Your task to perform on an android device: Open ESPN.com Image 0: 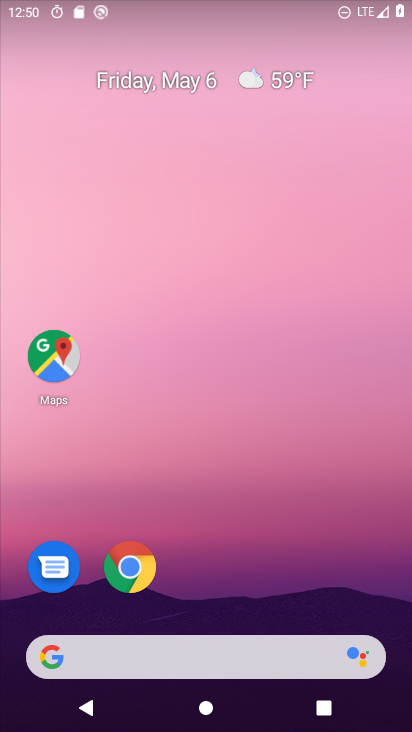
Step 0: click (135, 574)
Your task to perform on an android device: Open ESPN.com Image 1: 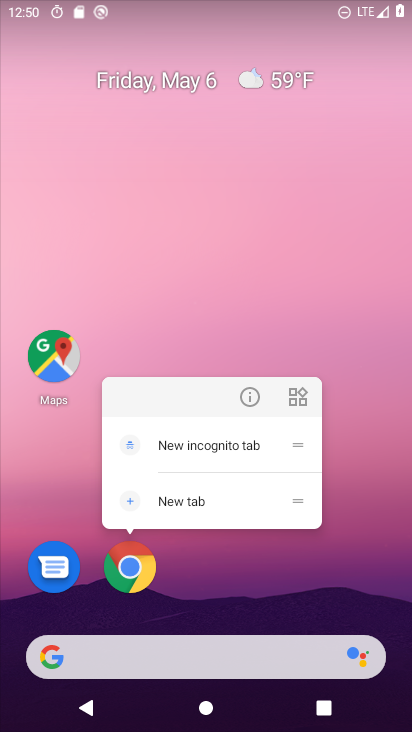
Step 1: click (133, 571)
Your task to perform on an android device: Open ESPN.com Image 2: 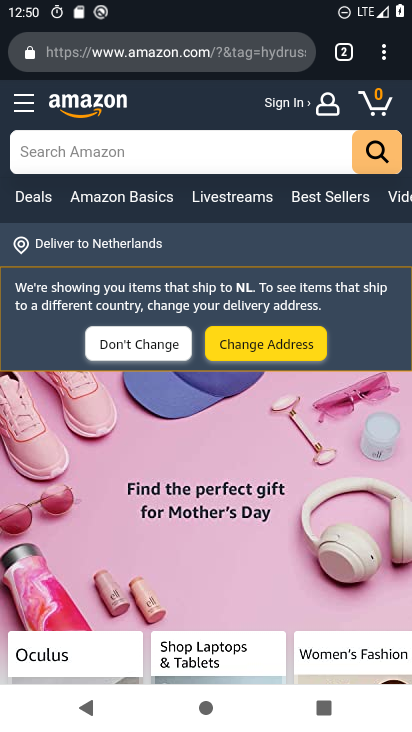
Step 2: click (111, 52)
Your task to perform on an android device: Open ESPN.com Image 3: 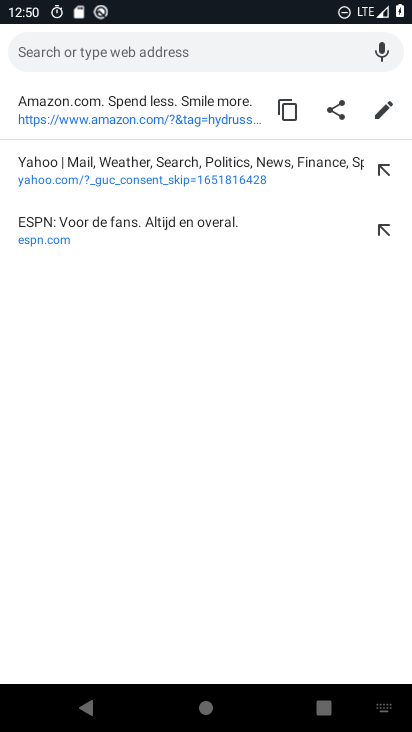
Step 3: click (35, 229)
Your task to perform on an android device: Open ESPN.com Image 4: 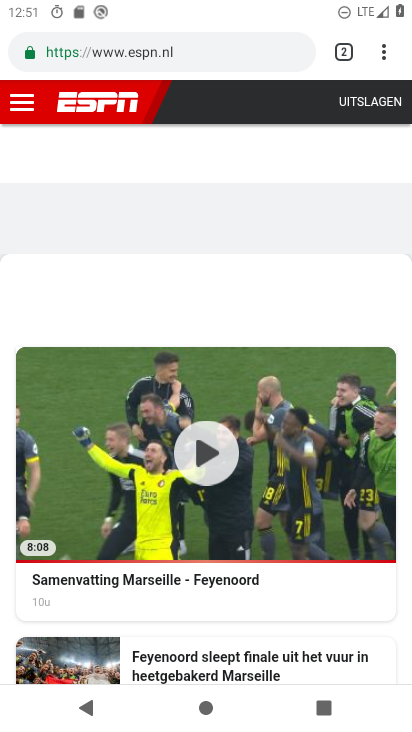
Step 4: task complete